Your task to perform on an android device: snooze an email in the gmail app Image 0: 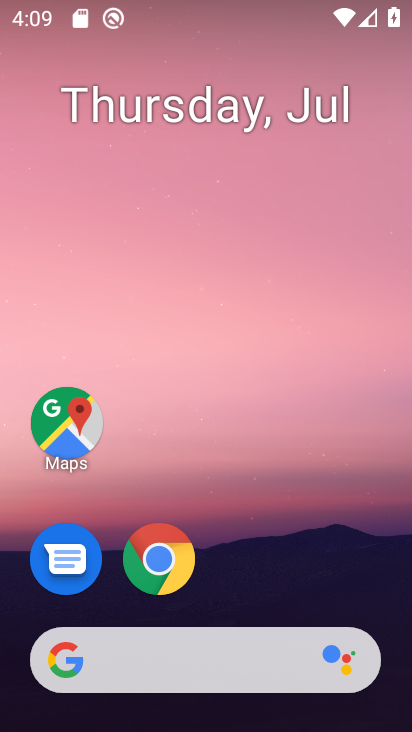
Step 0: drag from (196, 621) to (344, 127)
Your task to perform on an android device: snooze an email in the gmail app Image 1: 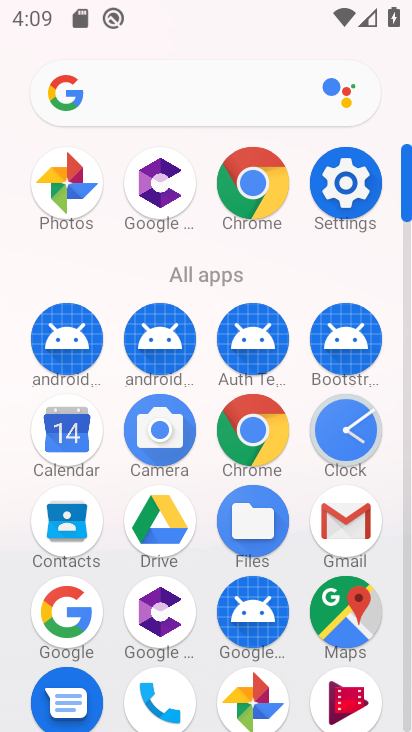
Step 1: click (340, 537)
Your task to perform on an android device: snooze an email in the gmail app Image 2: 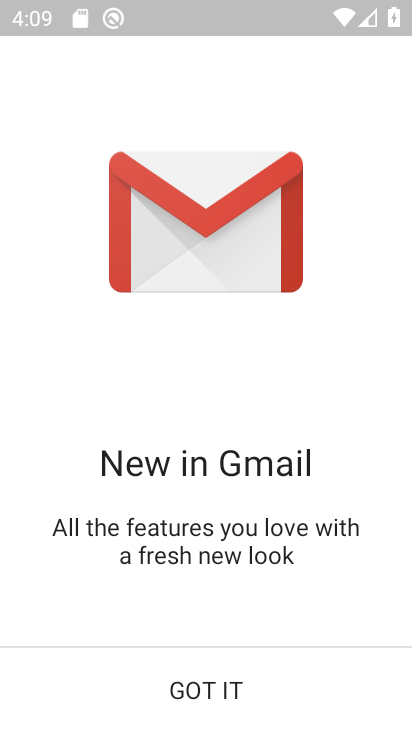
Step 2: click (254, 671)
Your task to perform on an android device: snooze an email in the gmail app Image 3: 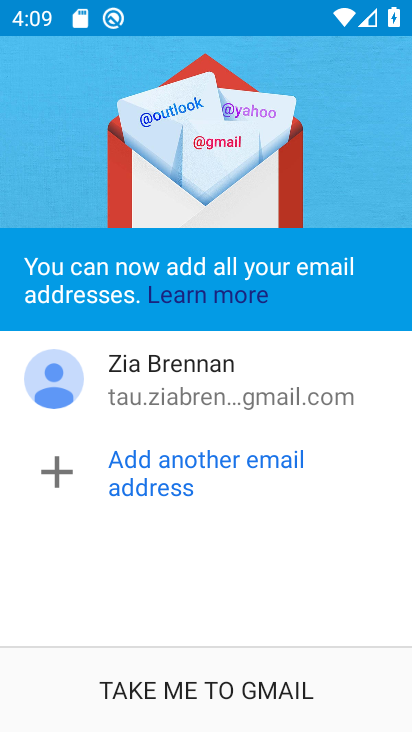
Step 3: click (241, 683)
Your task to perform on an android device: snooze an email in the gmail app Image 4: 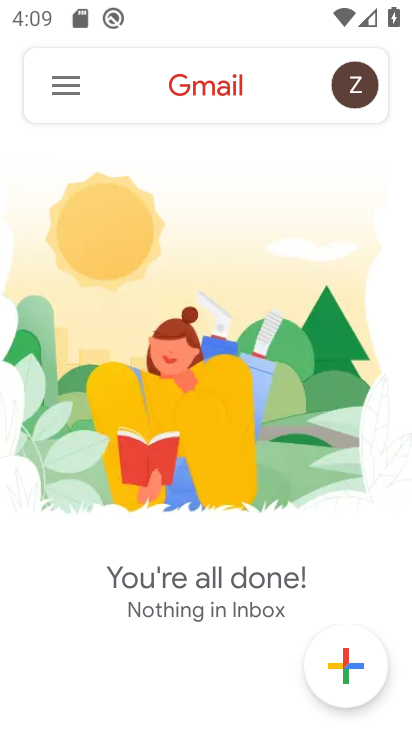
Step 4: click (79, 93)
Your task to perform on an android device: snooze an email in the gmail app Image 5: 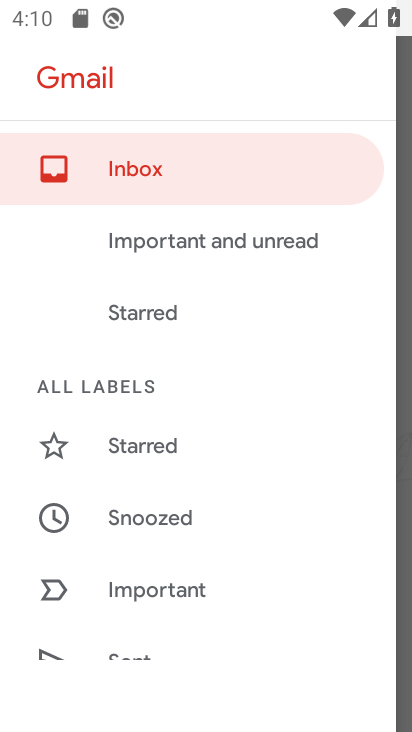
Step 5: drag from (186, 556) to (219, 218)
Your task to perform on an android device: snooze an email in the gmail app Image 6: 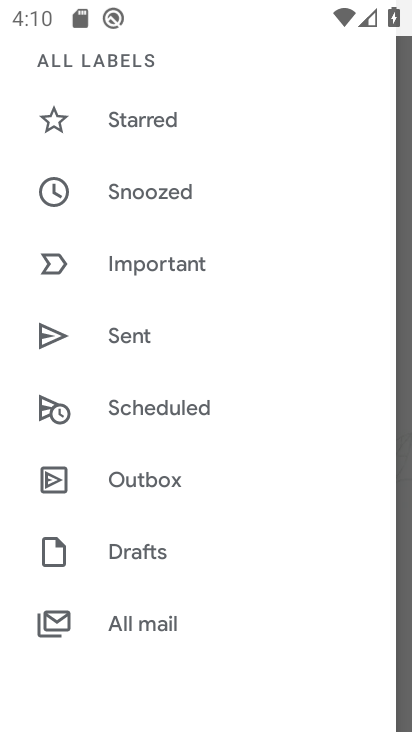
Step 6: click (154, 636)
Your task to perform on an android device: snooze an email in the gmail app Image 7: 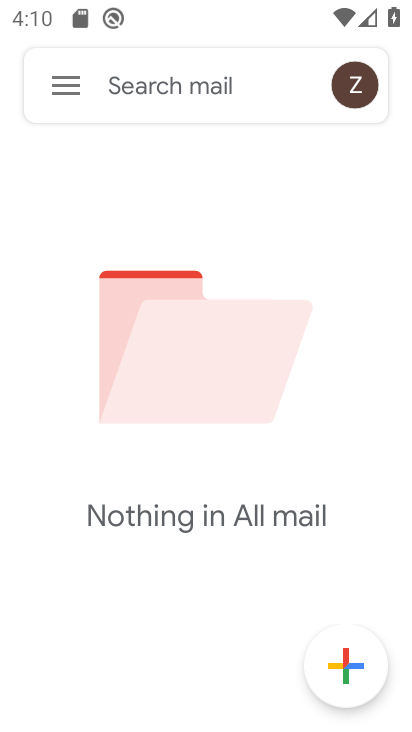
Step 7: drag from (219, 490) to (257, 318)
Your task to perform on an android device: snooze an email in the gmail app Image 8: 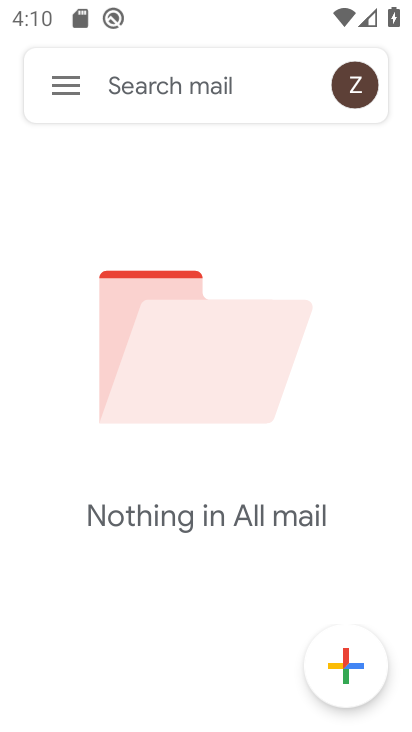
Step 8: click (69, 85)
Your task to perform on an android device: snooze an email in the gmail app Image 9: 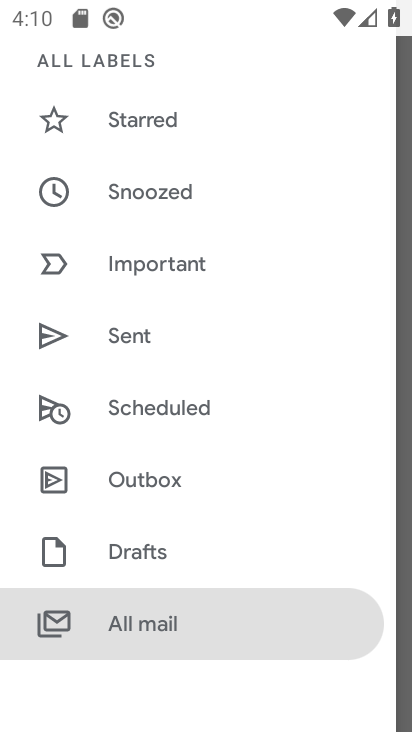
Step 9: task complete